Your task to perform on an android device: open app "Microsoft Authenticator" Image 0: 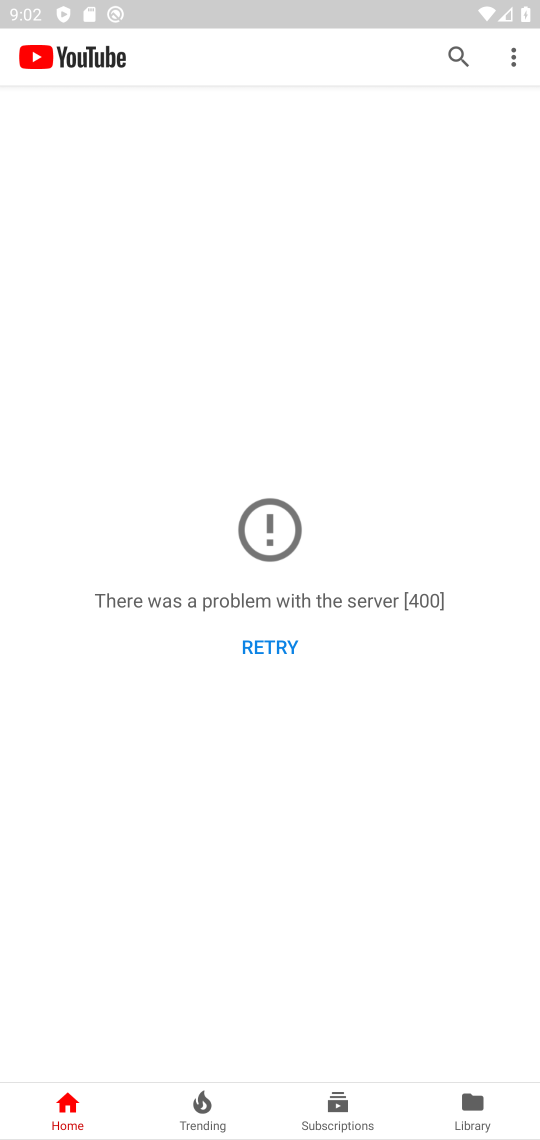
Step 0: press home button
Your task to perform on an android device: open app "Microsoft Authenticator" Image 1: 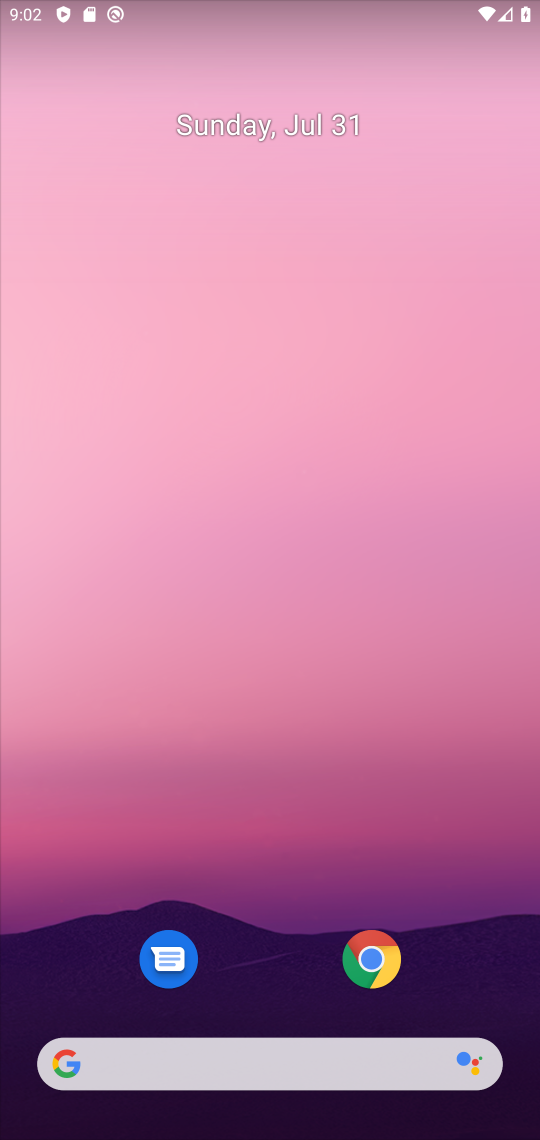
Step 1: drag from (271, 839) to (359, 143)
Your task to perform on an android device: open app "Microsoft Authenticator" Image 2: 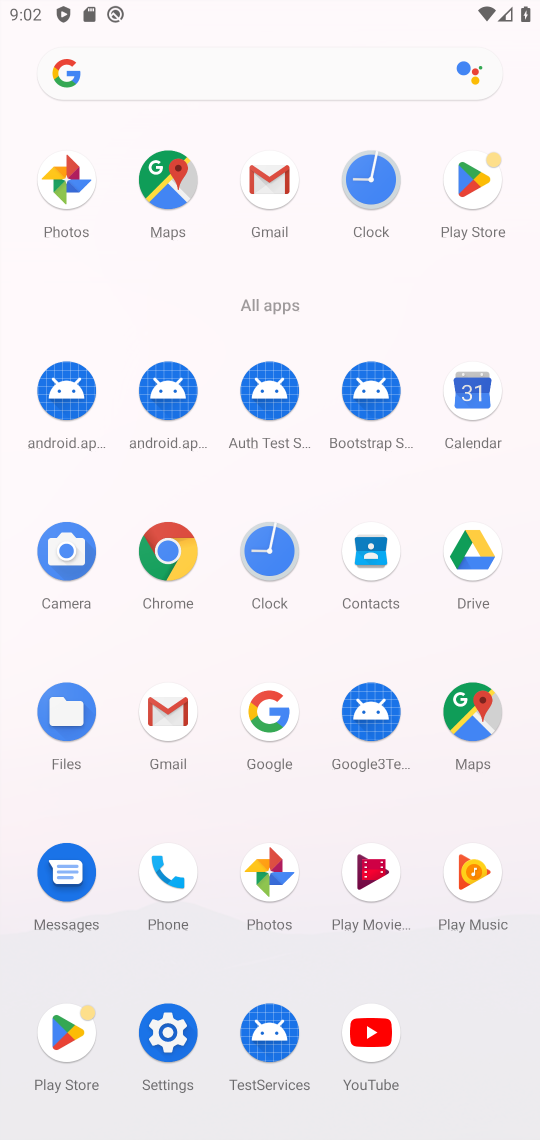
Step 2: click (481, 192)
Your task to perform on an android device: open app "Microsoft Authenticator" Image 3: 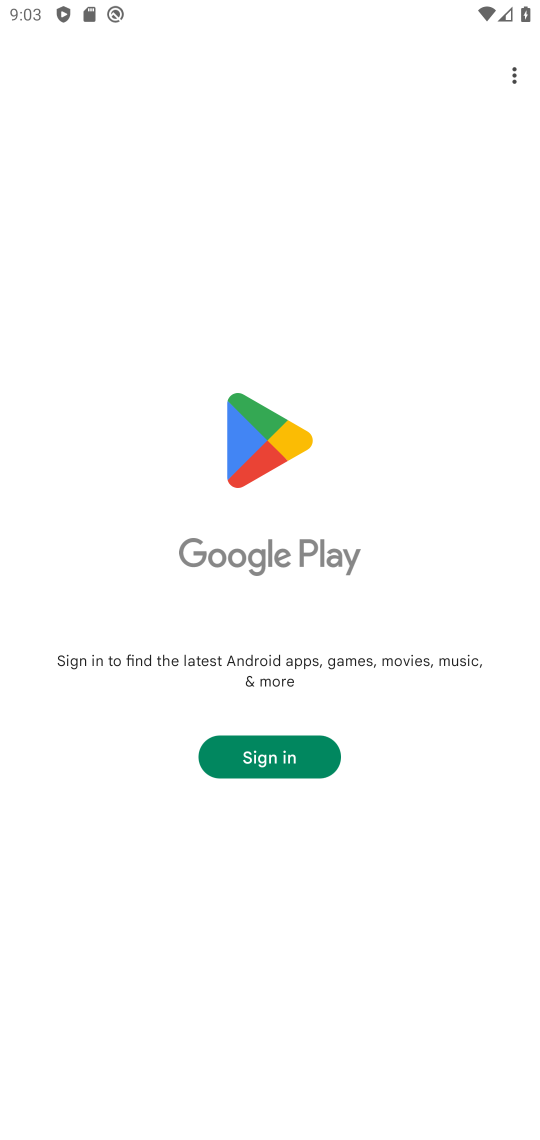
Step 3: task complete